Your task to perform on an android device: check out phone information Image 0: 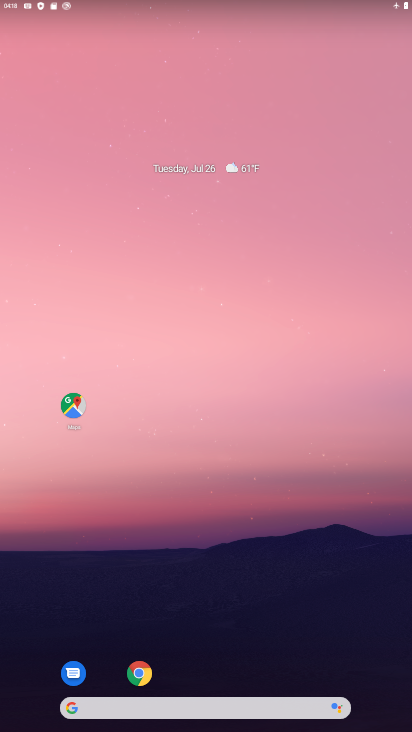
Step 0: drag from (188, 685) to (168, 19)
Your task to perform on an android device: check out phone information Image 1: 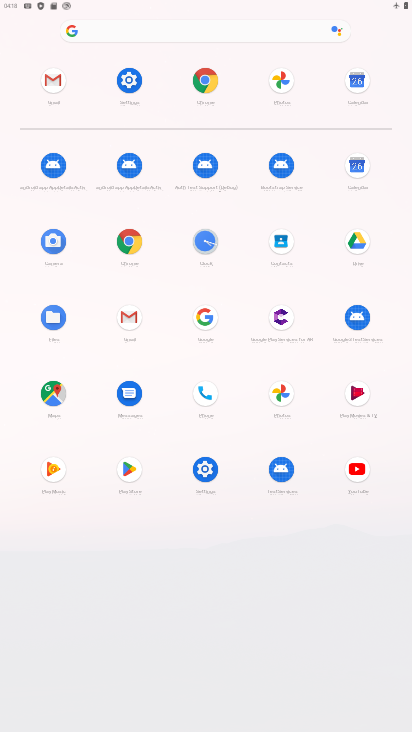
Step 1: click (203, 471)
Your task to perform on an android device: check out phone information Image 2: 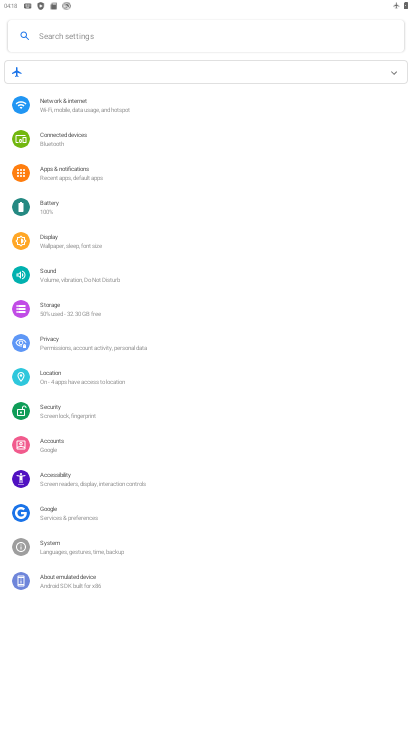
Step 2: task complete